Your task to perform on an android device: open a new tab in the chrome app Image 0: 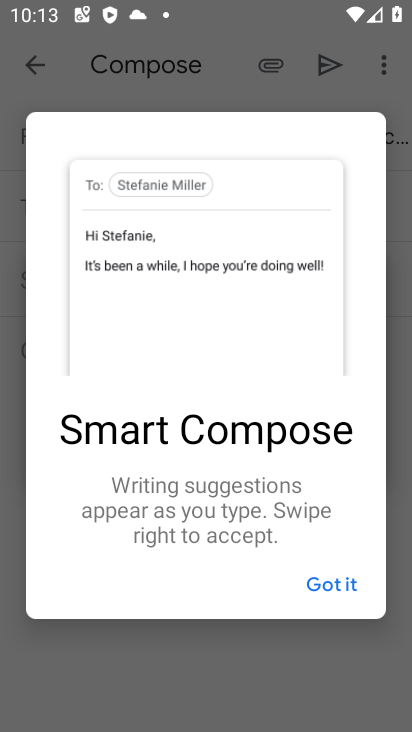
Step 0: click (348, 583)
Your task to perform on an android device: open a new tab in the chrome app Image 1: 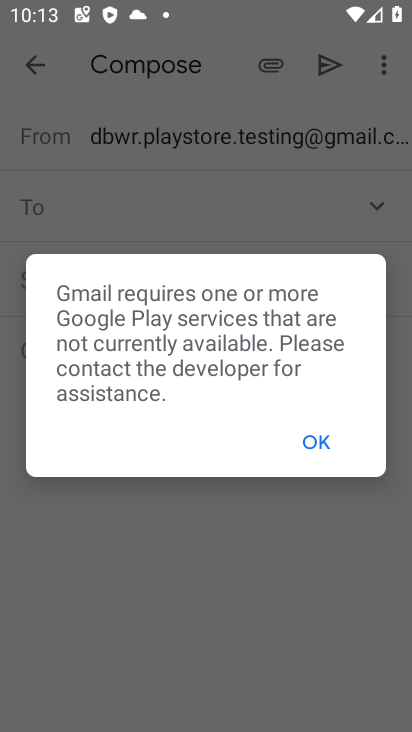
Step 1: click (309, 450)
Your task to perform on an android device: open a new tab in the chrome app Image 2: 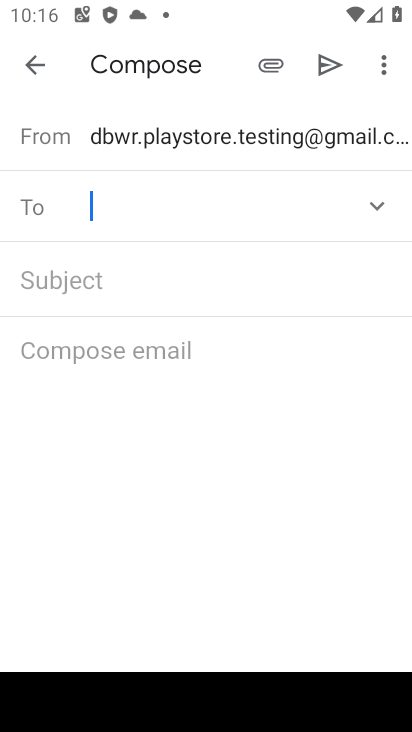
Step 2: press home button
Your task to perform on an android device: open a new tab in the chrome app Image 3: 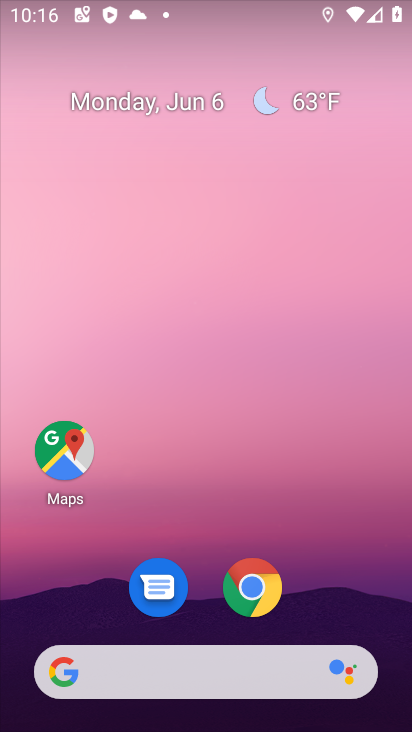
Step 3: click (256, 580)
Your task to perform on an android device: open a new tab in the chrome app Image 4: 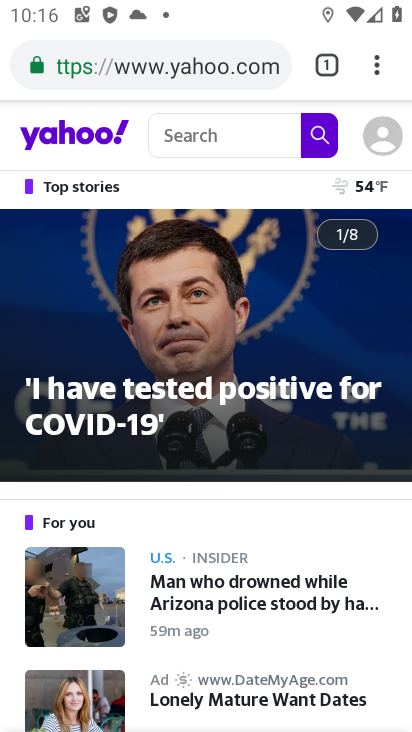
Step 4: click (378, 63)
Your task to perform on an android device: open a new tab in the chrome app Image 5: 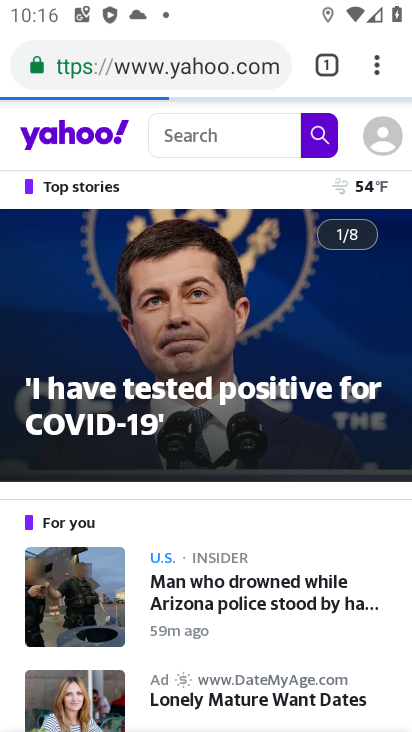
Step 5: click (367, 66)
Your task to perform on an android device: open a new tab in the chrome app Image 6: 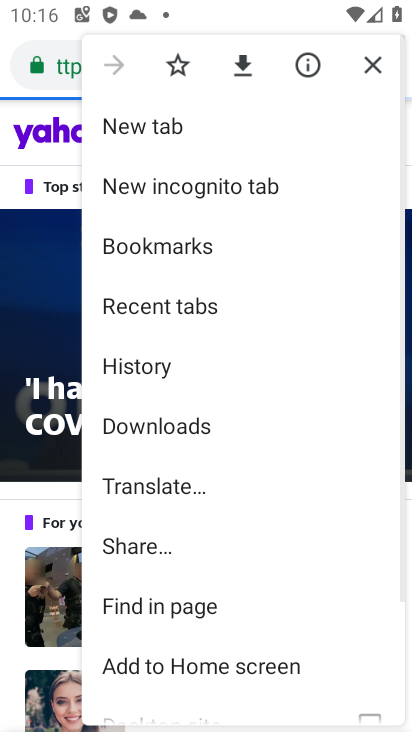
Step 6: click (163, 116)
Your task to perform on an android device: open a new tab in the chrome app Image 7: 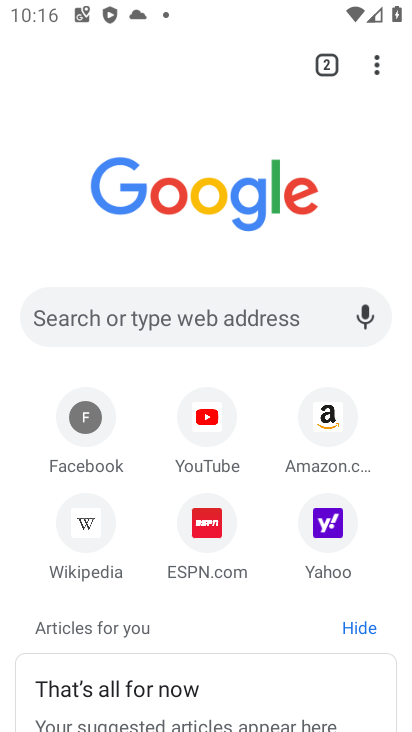
Step 7: task complete